Your task to perform on an android device: turn on data saver in the chrome app Image 0: 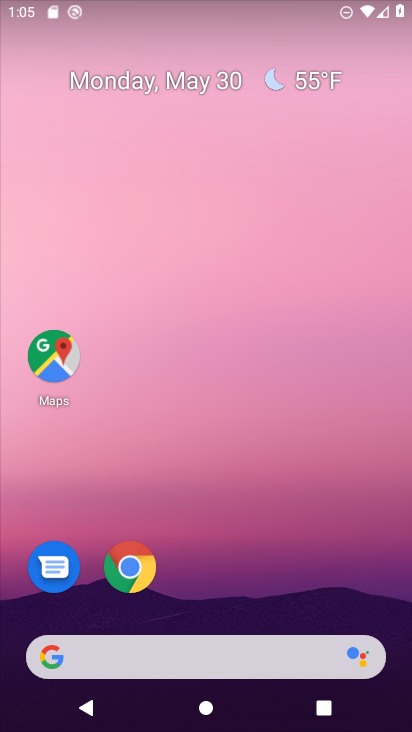
Step 0: click (128, 569)
Your task to perform on an android device: turn on data saver in the chrome app Image 1: 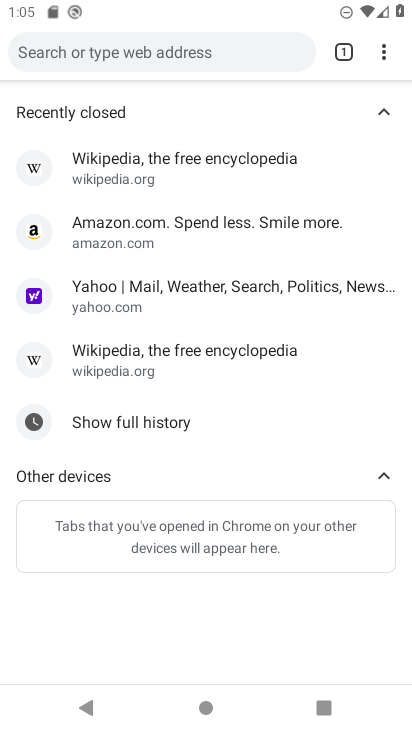
Step 1: click (381, 48)
Your task to perform on an android device: turn on data saver in the chrome app Image 2: 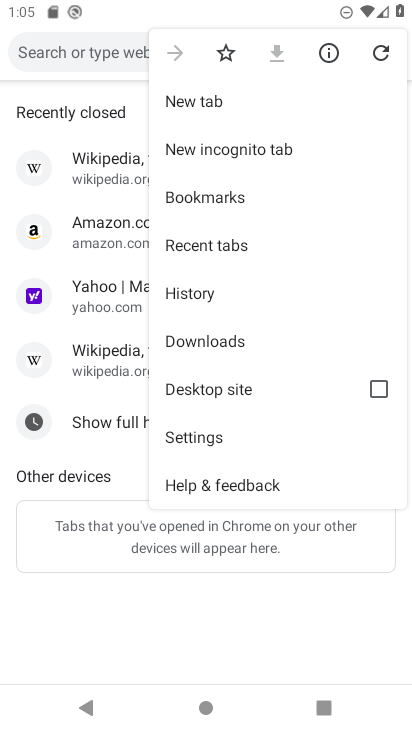
Step 2: click (239, 435)
Your task to perform on an android device: turn on data saver in the chrome app Image 3: 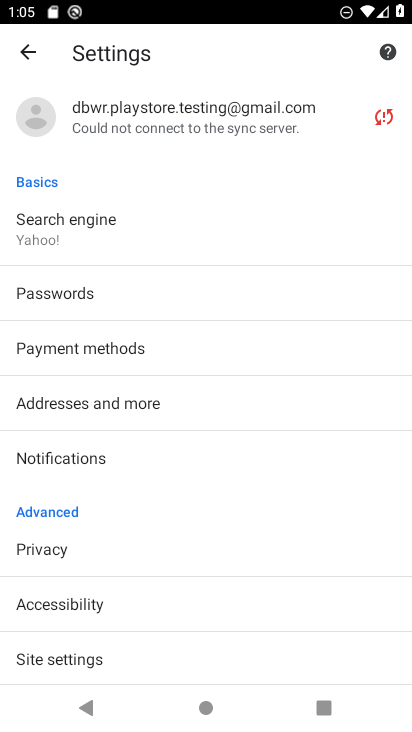
Step 3: drag from (153, 657) to (136, 210)
Your task to perform on an android device: turn on data saver in the chrome app Image 4: 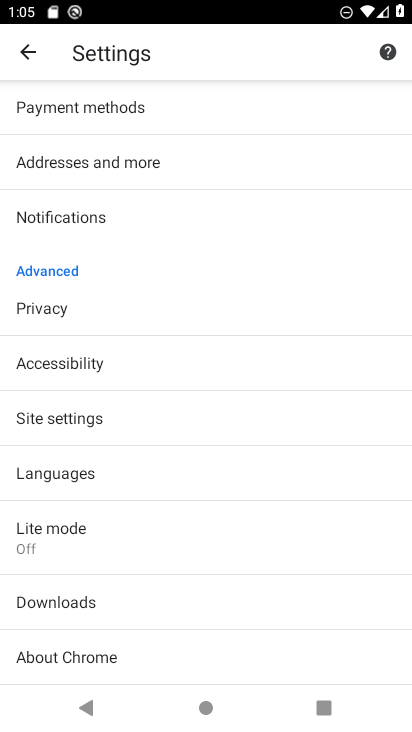
Step 4: click (88, 532)
Your task to perform on an android device: turn on data saver in the chrome app Image 5: 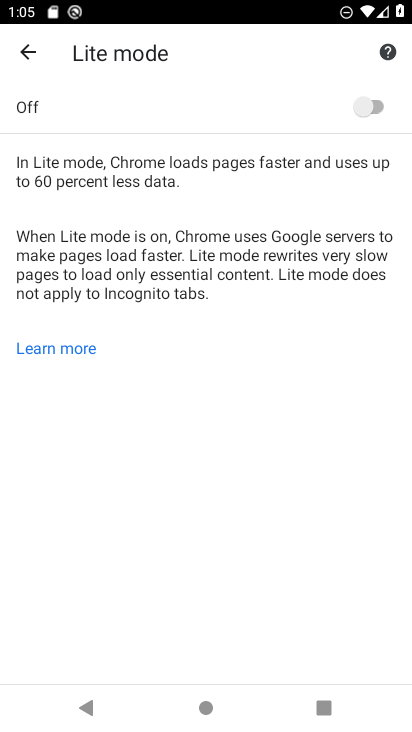
Step 5: click (374, 101)
Your task to perform on an android device: turn on data saver in the chrome app Image 6: 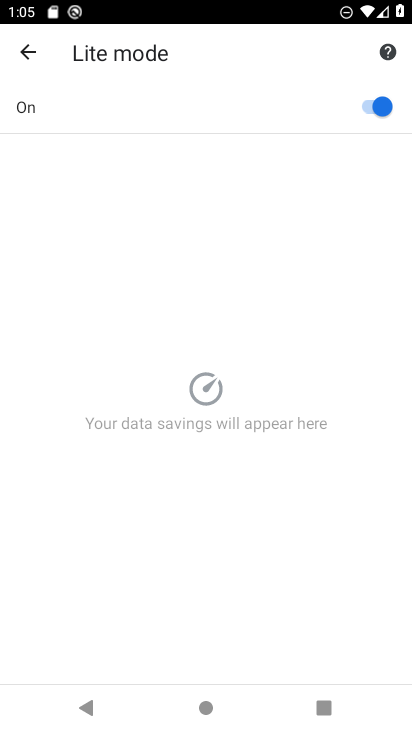
Step 6: task complete